Your task to perform on an android device: turn notification dots off Image 0: 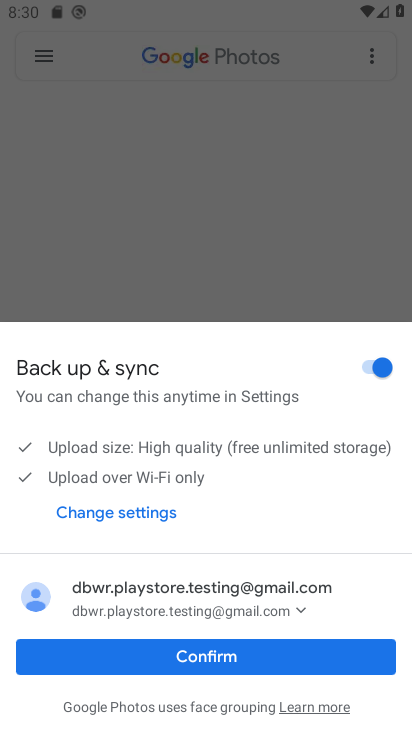
Step 0: press home button
Your task to perform on an android device: turn notification dots off Image 1: 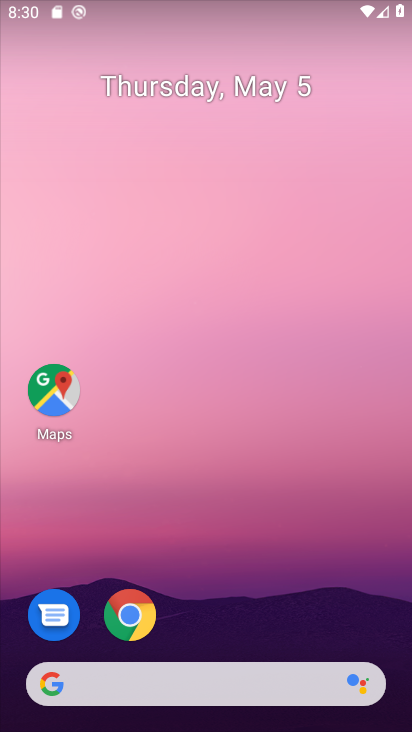
Step 1: drag from (168, 658) to (163, 245)
Your task to perform on an android device: turn notification dots off Image 2: 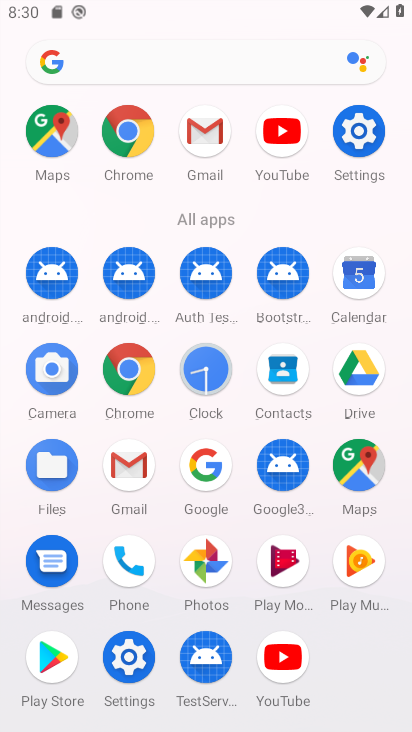
Step 2: click (358, 132)
Your task to perform on an android device: turn notification dots off Image 3: 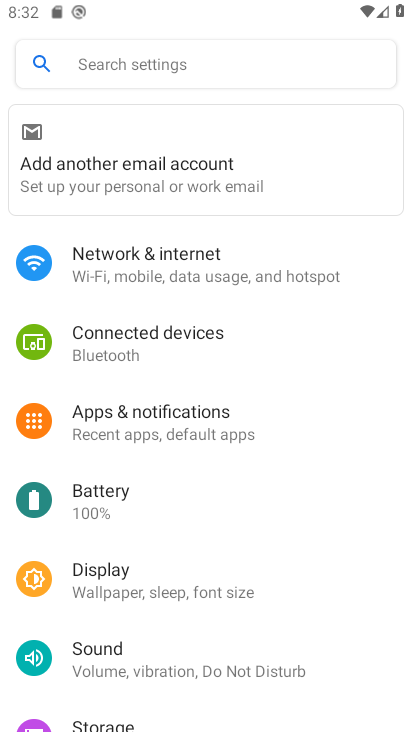
Step 3: click (139, 427)
Your task to perform on an android device: turn notification dots off Image 4: 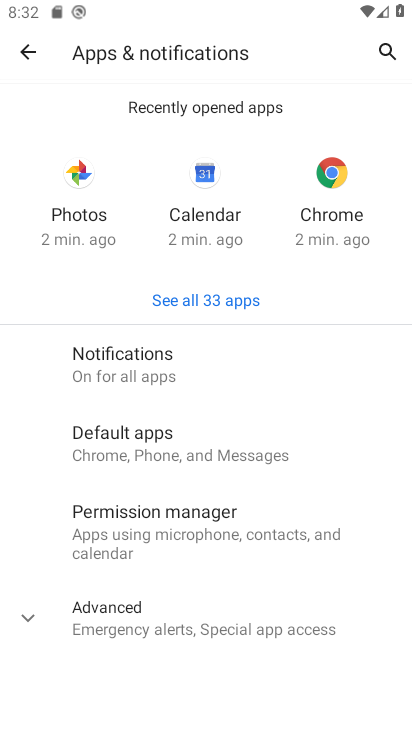
Step 4: click (136, 368)
Your task to perform on an android device: turn notification dots off Image 5: 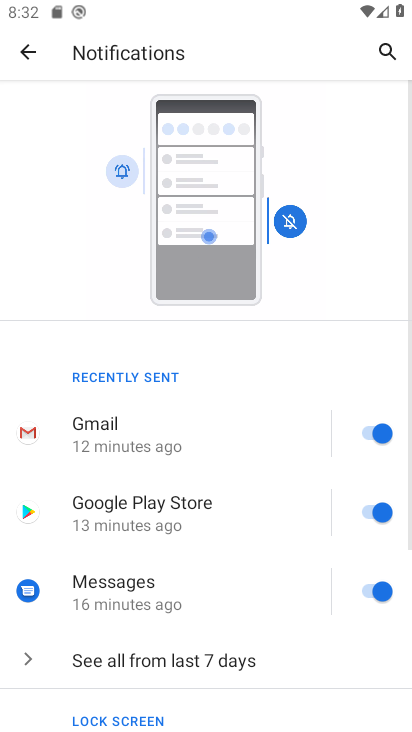
Step 5: drag from (164, 686) to (155, 330)
Your task to perform on an android device: turn notification dots off Image 6: 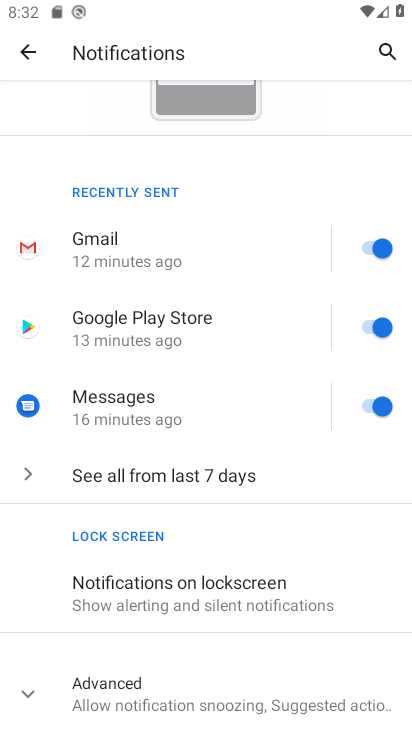
Step 6: click (161, 701)
Your task to perform on an android device: turn notification dots off Image 7: 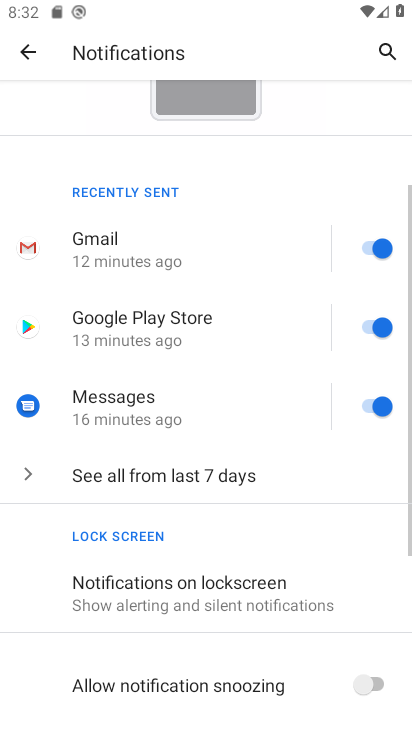
Step 7: drag from (182, 610) to (203, 296)
Your task to perform on an android device: turn notification dots off Image 8: 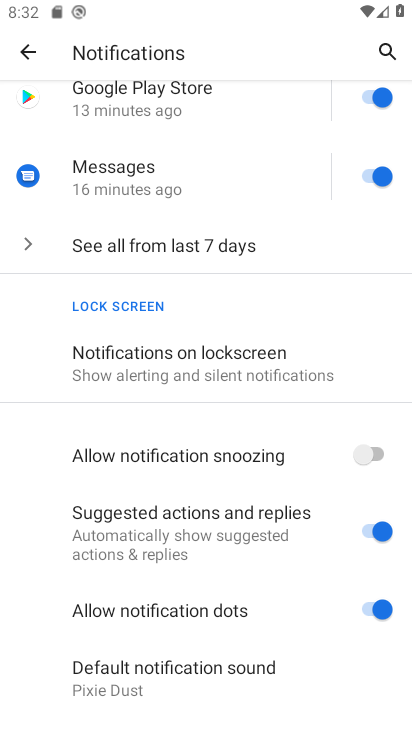
Step 8: click (369, 605)
Your task to perform on an android device: turn notification dots off Image 9: 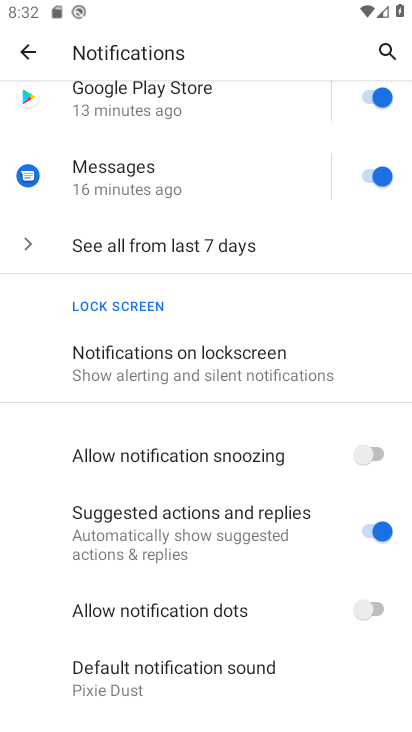
Step 9: task complete